Your task to perform on an android device: all mails in gmail Image 0: 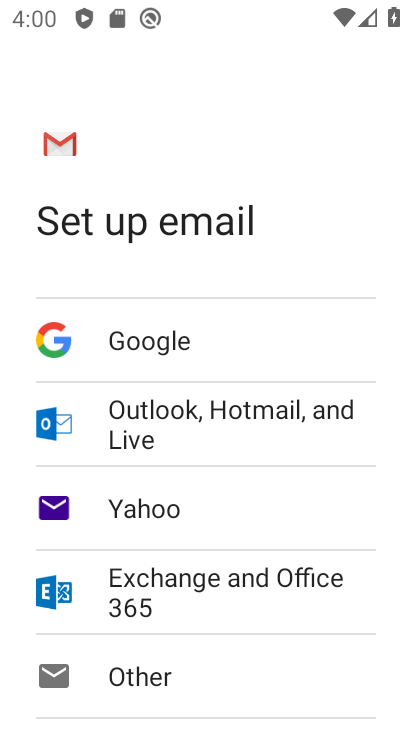
Step 0: press home button
Your task to perform on an android device: all mails in gmail Image 1: 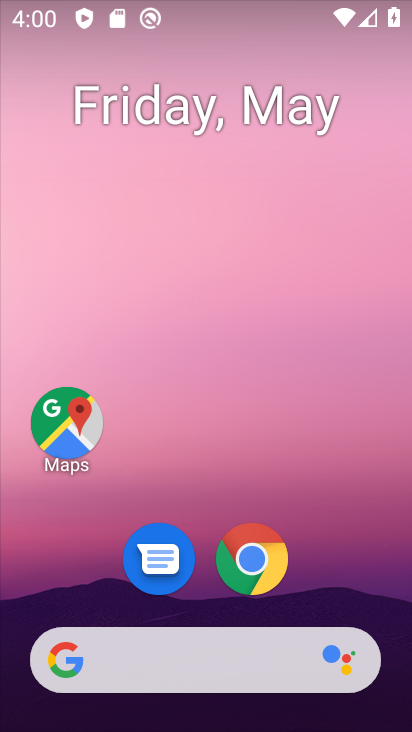
Step 1: drag from (336, 420) to (357, 110)
Your task to perform on an android device: all mails in gmail Image 2: 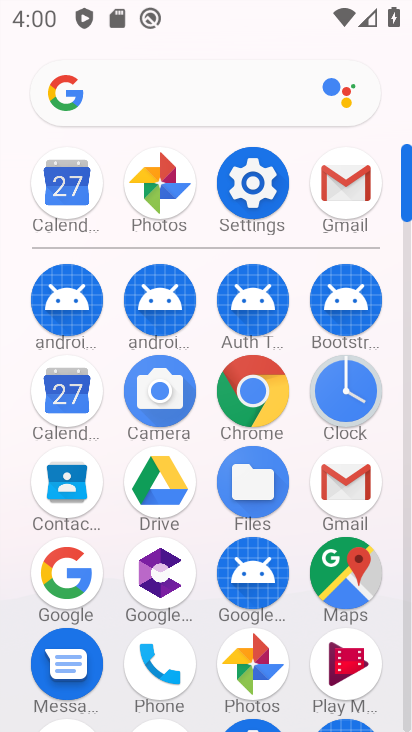
Step 2: click (336, 187)
Your task to perform on an android device: all mails in gmail Image 3: 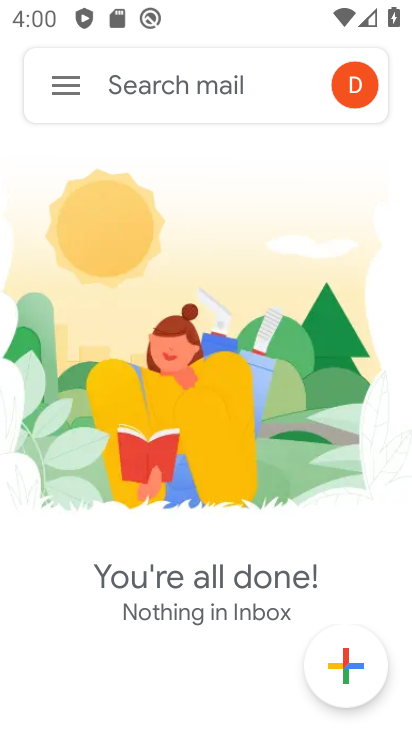
Step 3: click (67, 83)
Your task to perform on an android device: all mails in gmail Image 4: 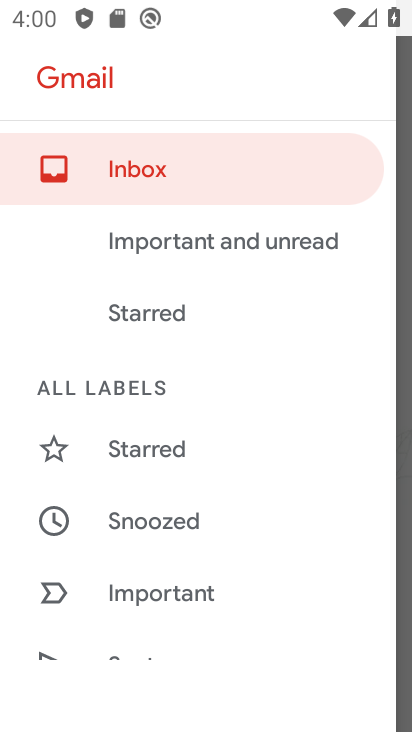
Step 4: drag from (215, 554) to (304, 184)
Your task to perform on an android device: all mails in gmail Image 5: 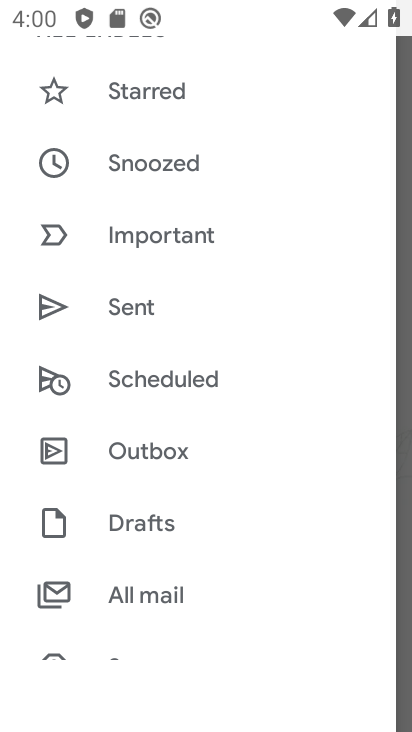
Step 5: drag from (199, 549) to (303, 150)
Your task to perform on an android device: all mails in gmail Image 6: 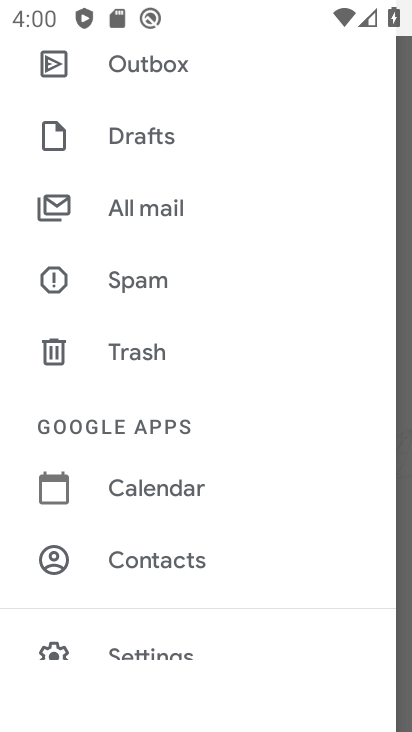
Step 6: click (218, 221)
Your task to perform on an android device: all mails in gmail Image 7: 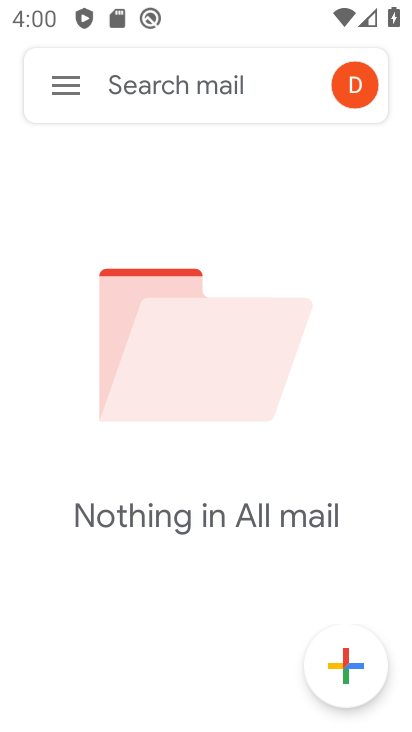
Step 7: click (68, 81)
Your task to perform on an android device: all mails in gmail Image 8: 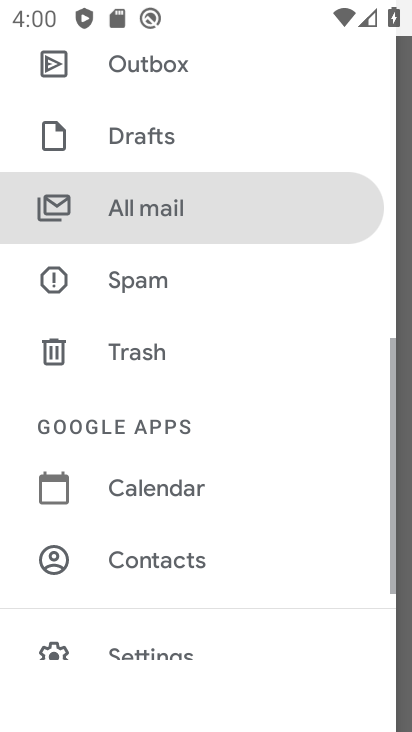
Step 8: drag from (163, 153) to (154, 633)
Your task to perform on an android device: all mails in gmail Image 9: 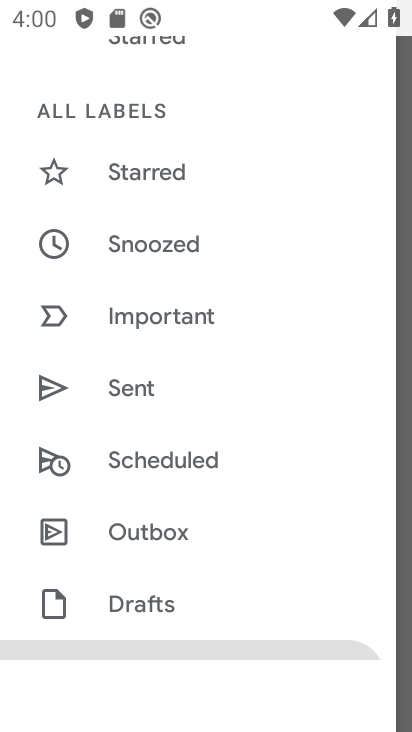
Step 9: drag from (228, 218) to (182, 636)
Your task to perform on an android device: all mails in gmail Image 10: 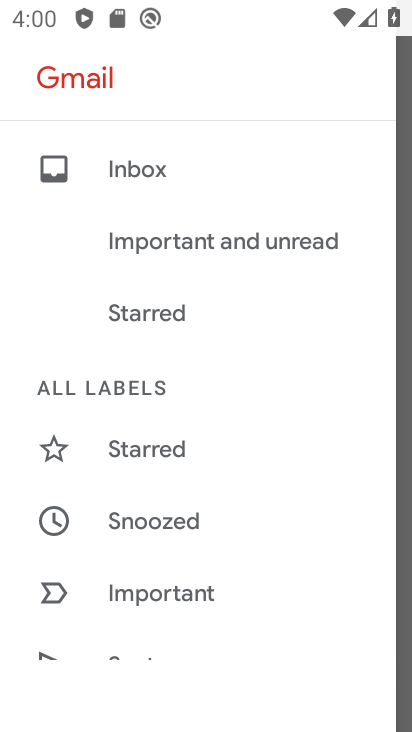
Step 10: click (153, 170)
Your task to perform on an android device: all mails in gmail Image 11: 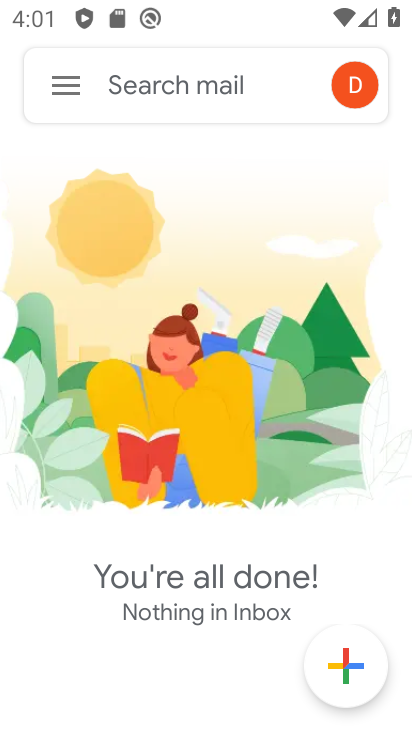
Step 11: task complete